Your task to perform on an android device: Is it going to rain tomorrow? Image 0: 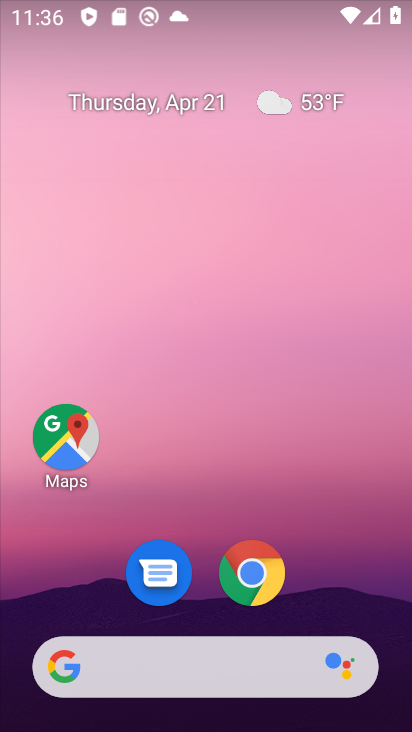
Step 0: click (311, 96)
Your task to perform on an android device: Is it going to rain tomorrow? Image 1: 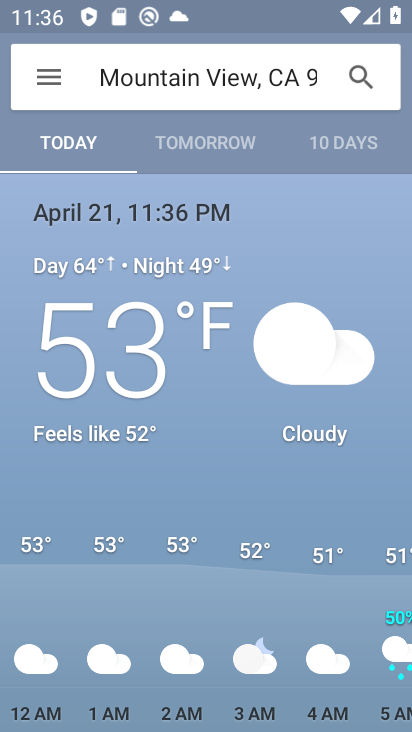
Step 1: click (219, 134)
Your task to perform on an android device: Is it going to rain tomorrow? Image 2: 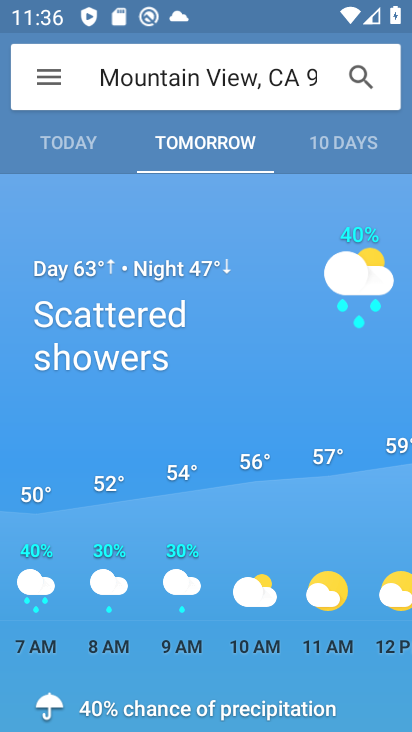
Step 2: task complete